Your task to perform on an android device: Open Amazon Image 0: 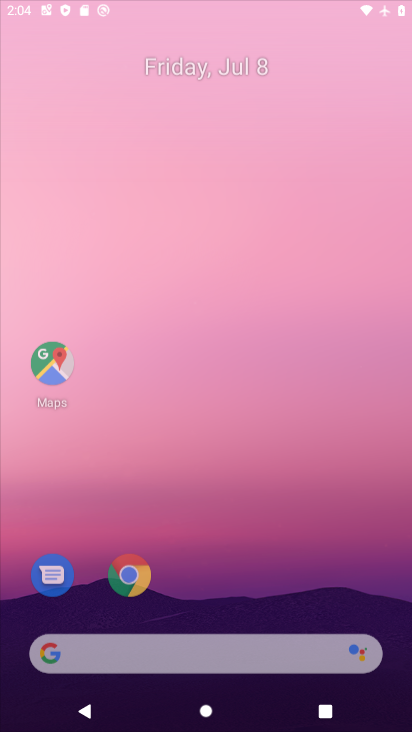
Step 0: press home button
Your task to perform on an android device: Open Amazon Image 1: 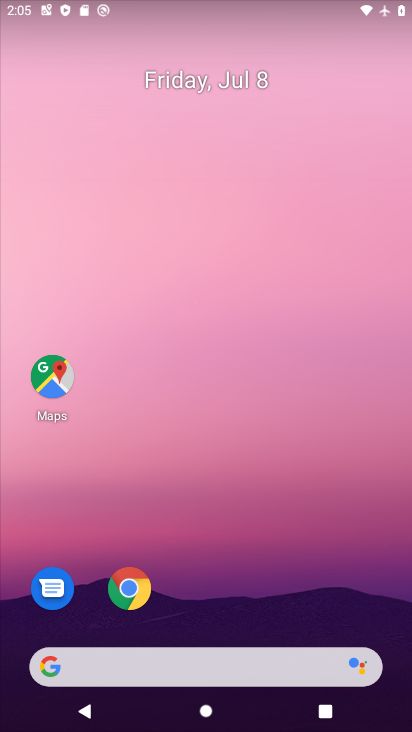
Step 1: click (49, 666)
Your task to perform on an android device: Open Amazon Image 2: 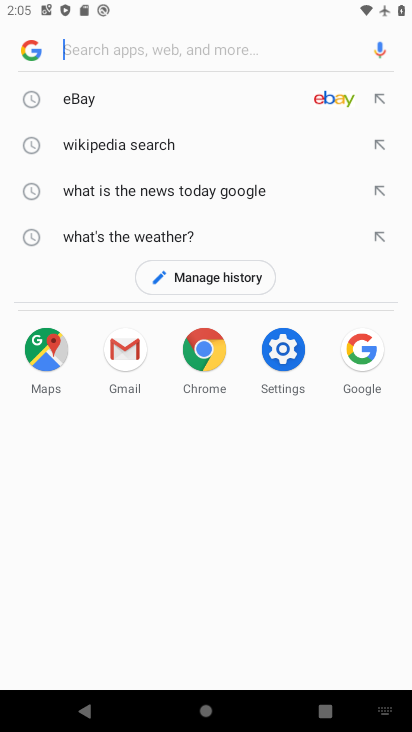
Step 2: type "Amazon"
Your task to perform on an android device: Open Amazon Image 3: 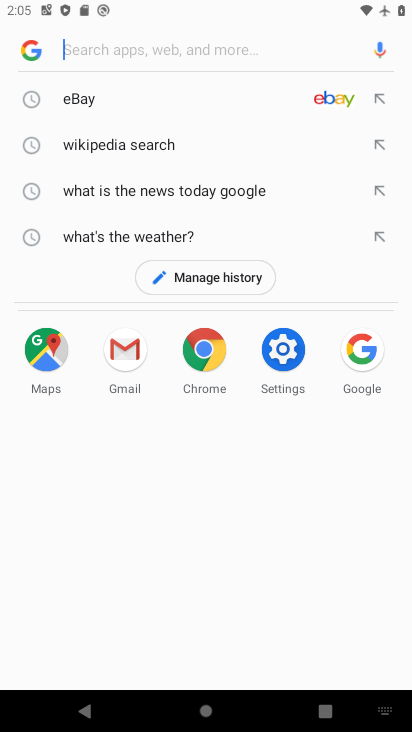
Step 3: click (135, 46)
Your task to perform on an android device: Open Amazon Image 4: 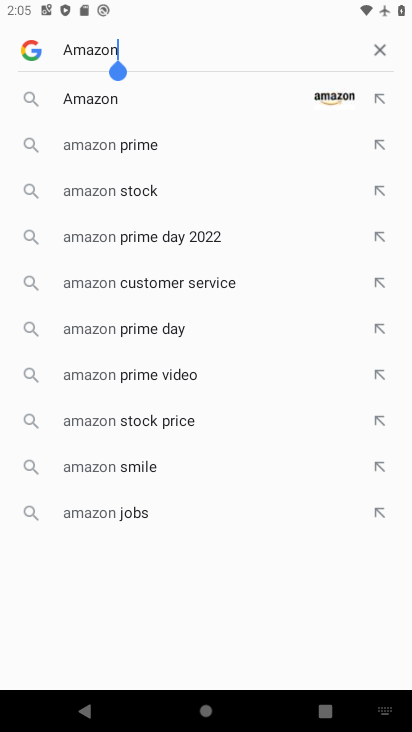
Step 4: click (97, 98)
Your task to perform on an android device: Open Amazon Image 5: 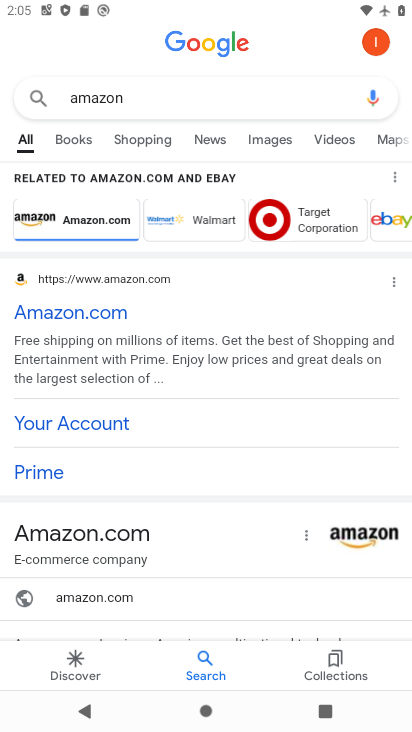
Step 5: click (62, 318)
Your task to perform on an android device: Open Amazon Image 6: 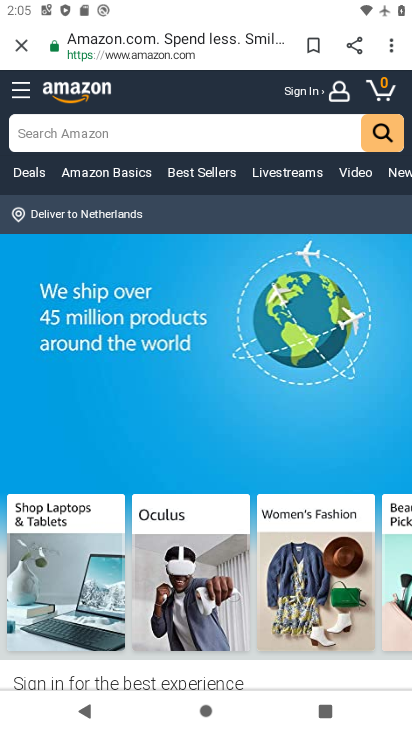
Step 6: task complete